Your task to perform on an android device: Turn off the flashlight Image 0: 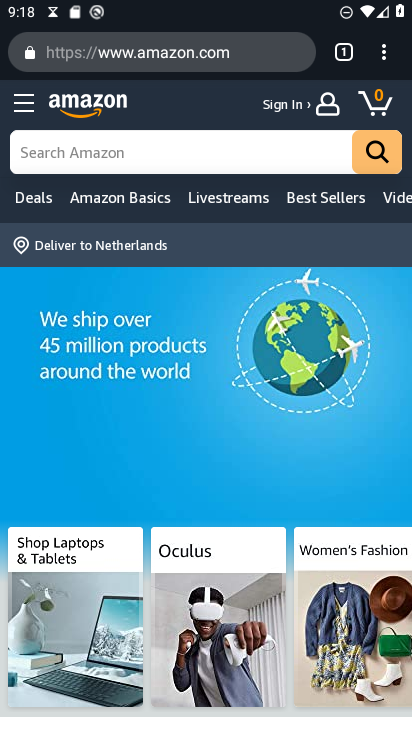
Step 0: press home button
Your task to perform on an android device: Turn off the flashlight Image 1: 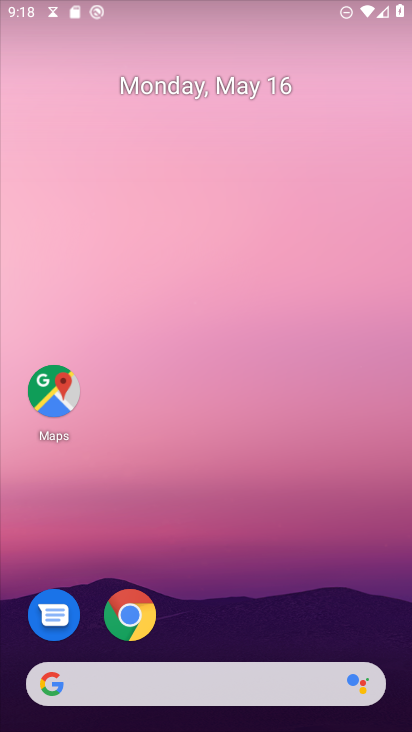
Step 1: drag from (26, 583) to (336, 73)
Your task to perform on an android device: Turn off the flashlight Image 2: 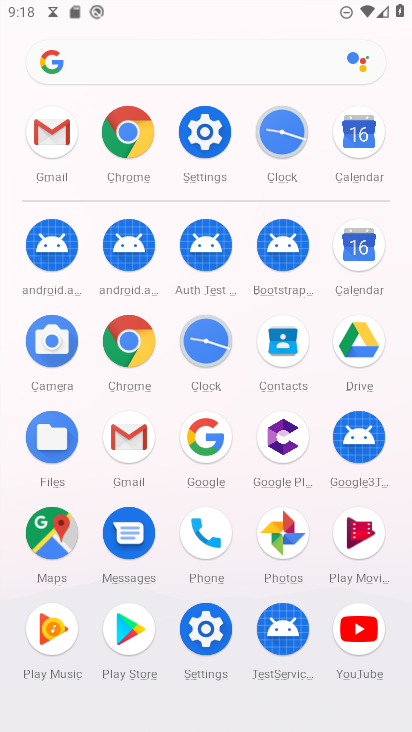
Step 2: click (203, 134)
Your task to perform on an android device: Turn off the flashlight Image 3: 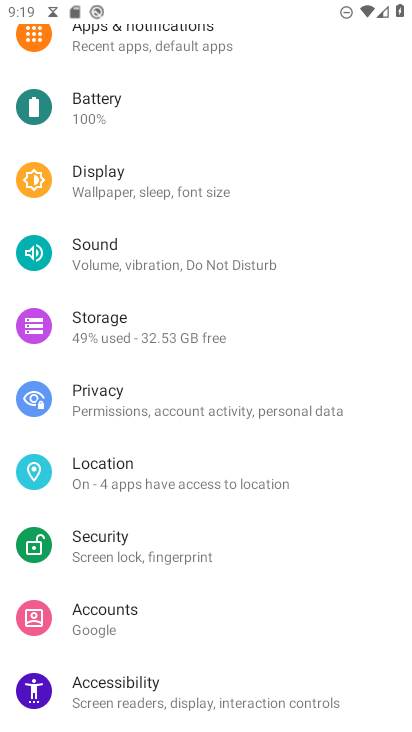
Step 3: click (158, 248)
Your task to perform on an android device: Turn off the flashlight Image 4: 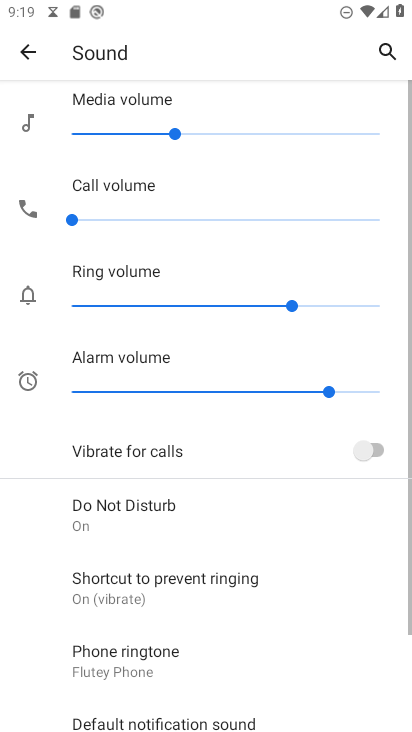
Step 4: task complete